Your task to perform on an android device: Go to network settings Image 0: 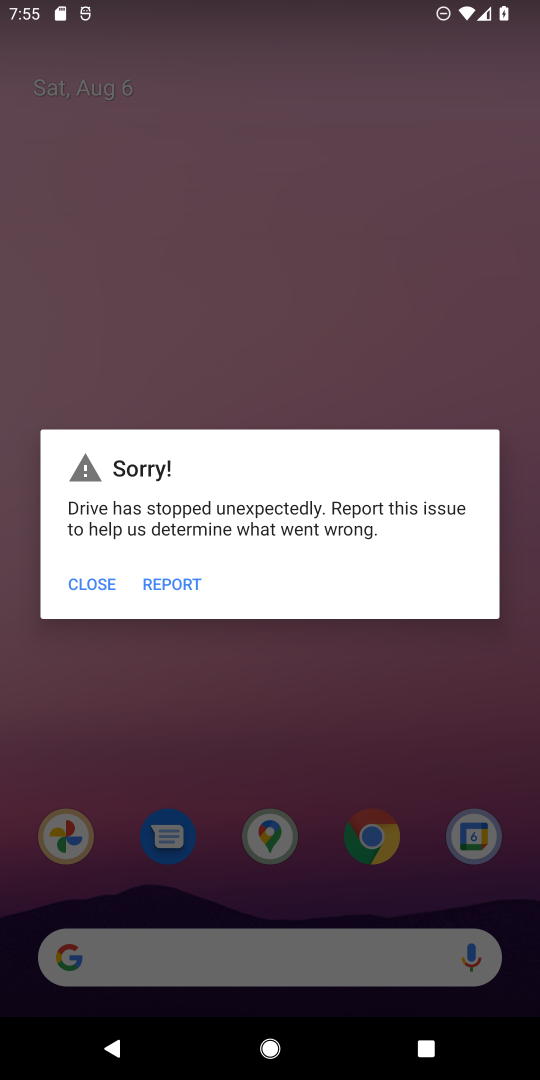
Step 0: click (385, 703)
Your task to perform on an android device: Go to network settings Image 1: 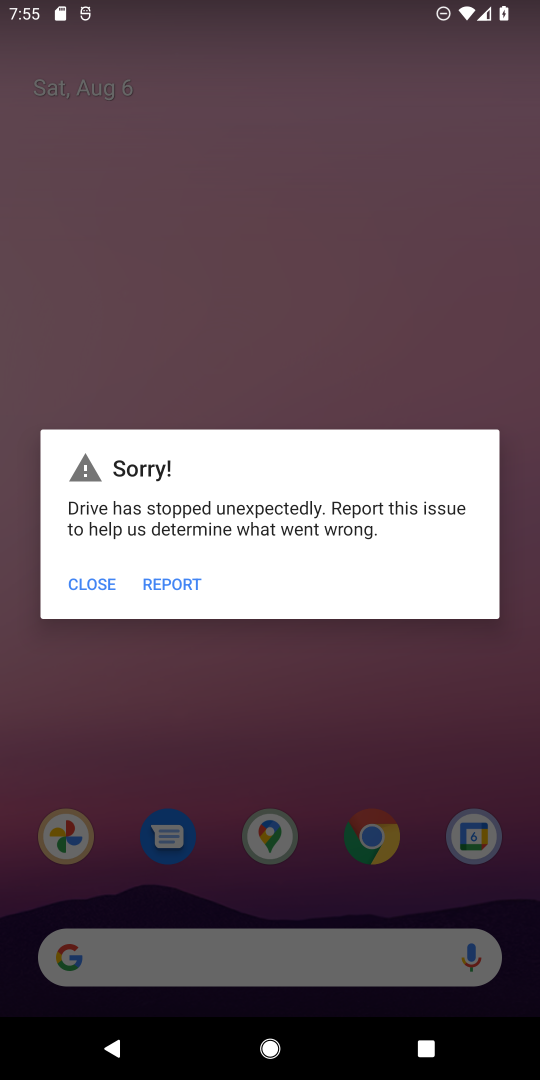
Step 1: drag from (268, 936) to (262, 290)
Your task to perform on an android device: Go to network settings Image 2: 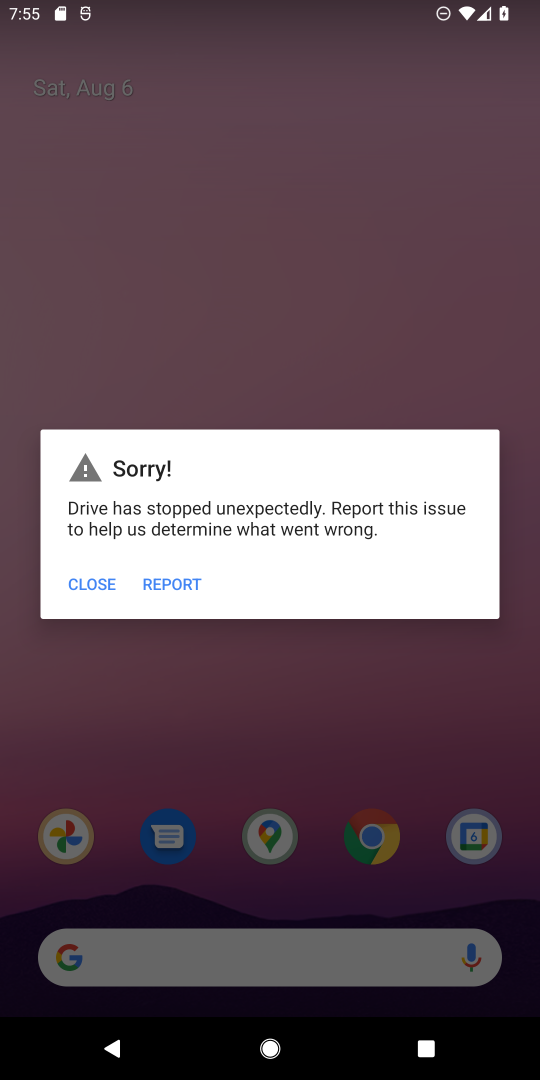
Step 2: click (97, 579)
Your task to perform on an android device: Go to network settings Image 3: 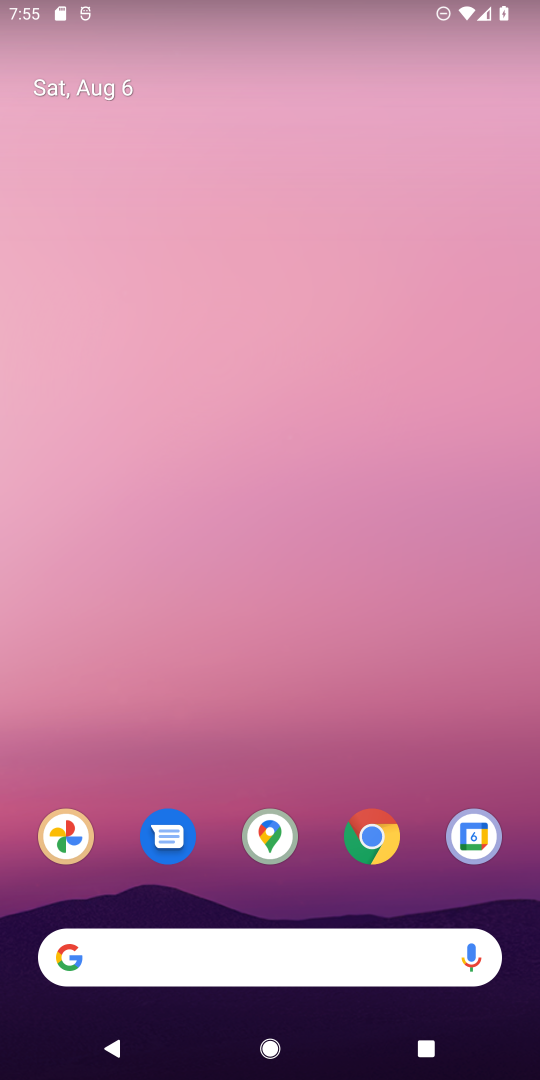
Step 3: drag from (308, 826) to (308, 347)
Your task to perform on an android device: Go to network settings Image 4: 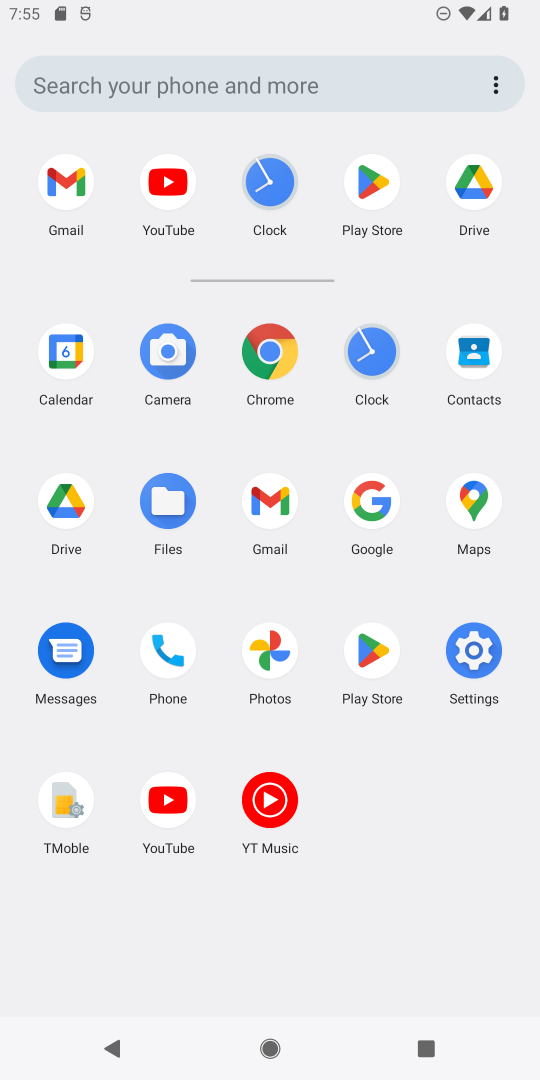
Step 4: click (463, 658)
Your task to perform on an android device: Go to network settings Image 5: 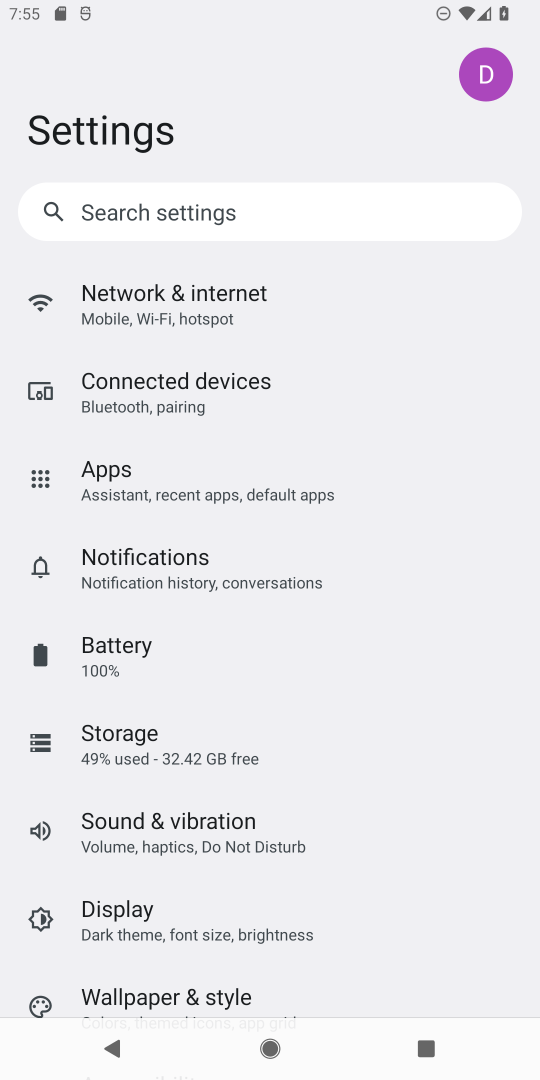
Step 5: click (199, 319)
Your task to perform on an android device: Go to network settings Image 6: 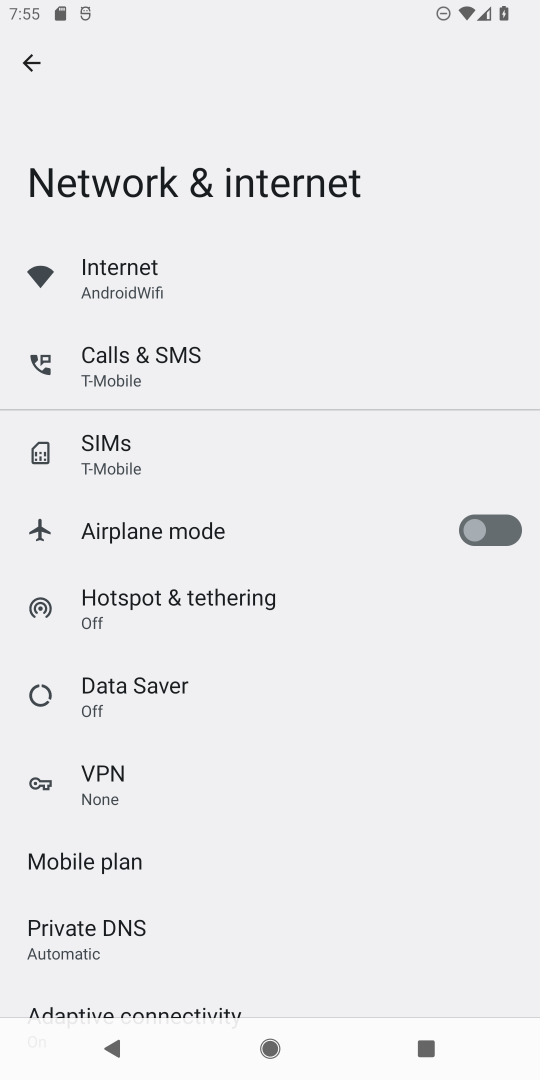
Step 6: task complete